Your task to perform on an android device: turn off priority inbox in the gmail app Image 0: 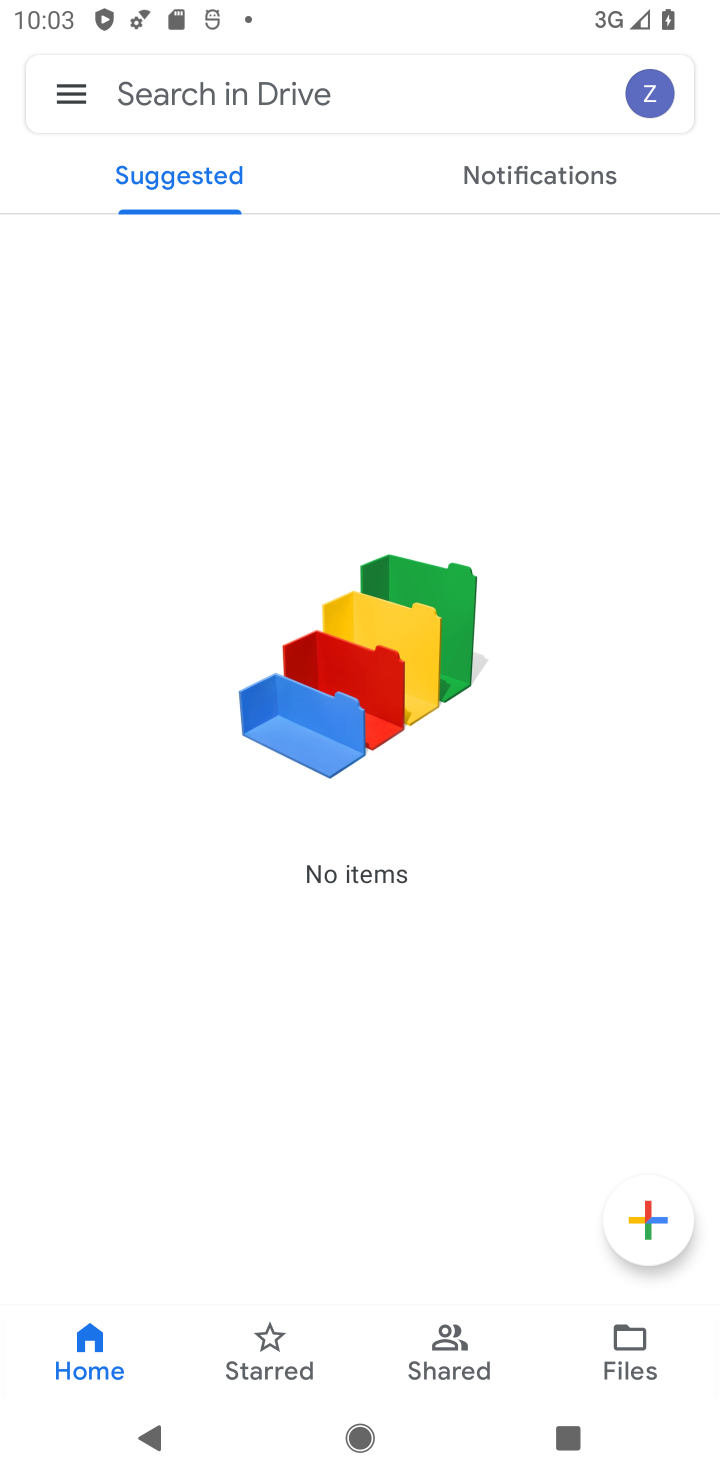
Step 0: press home button
Your task to perform on an android device: turn off priority inbox in the gmail app Image 1: 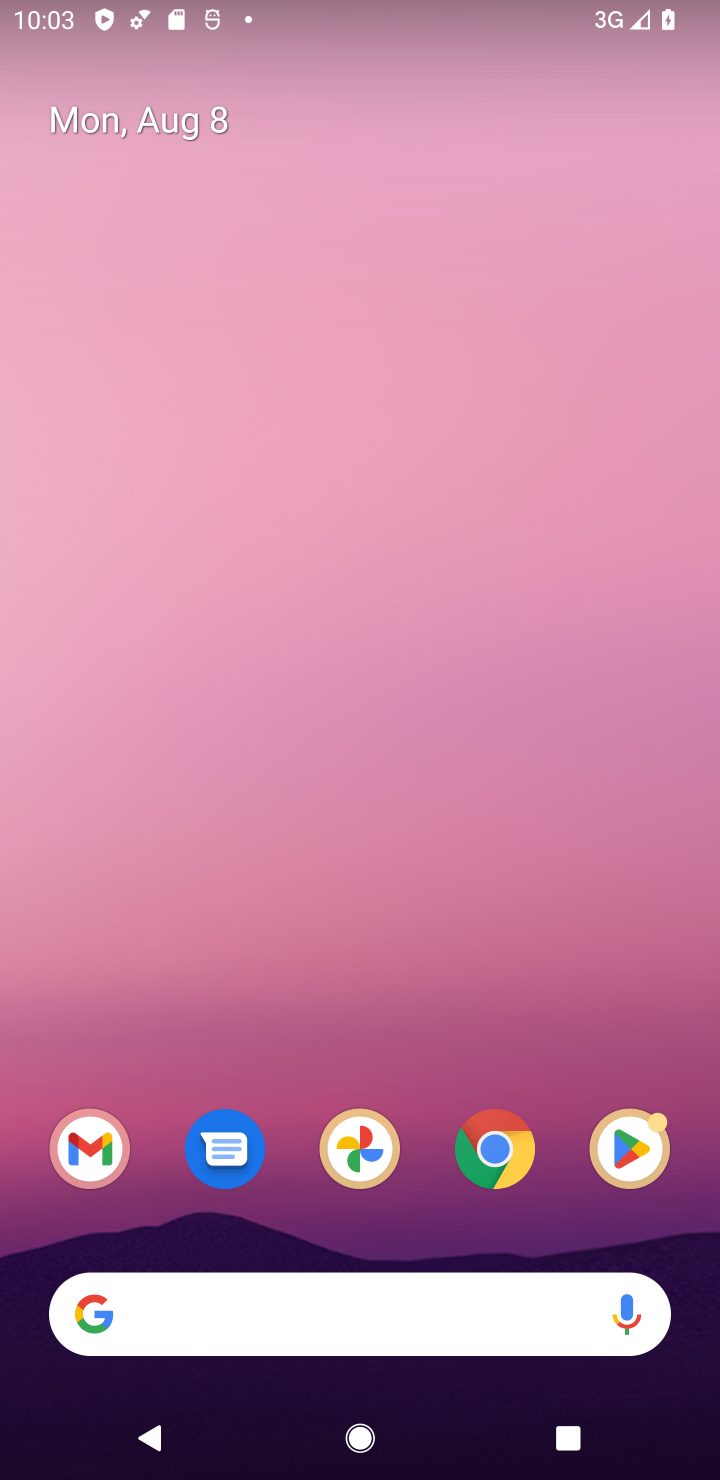
Step 1: click (85, 1132)
Your task to perform on an android device: turn off priority inbox in the gmail app Image 2: 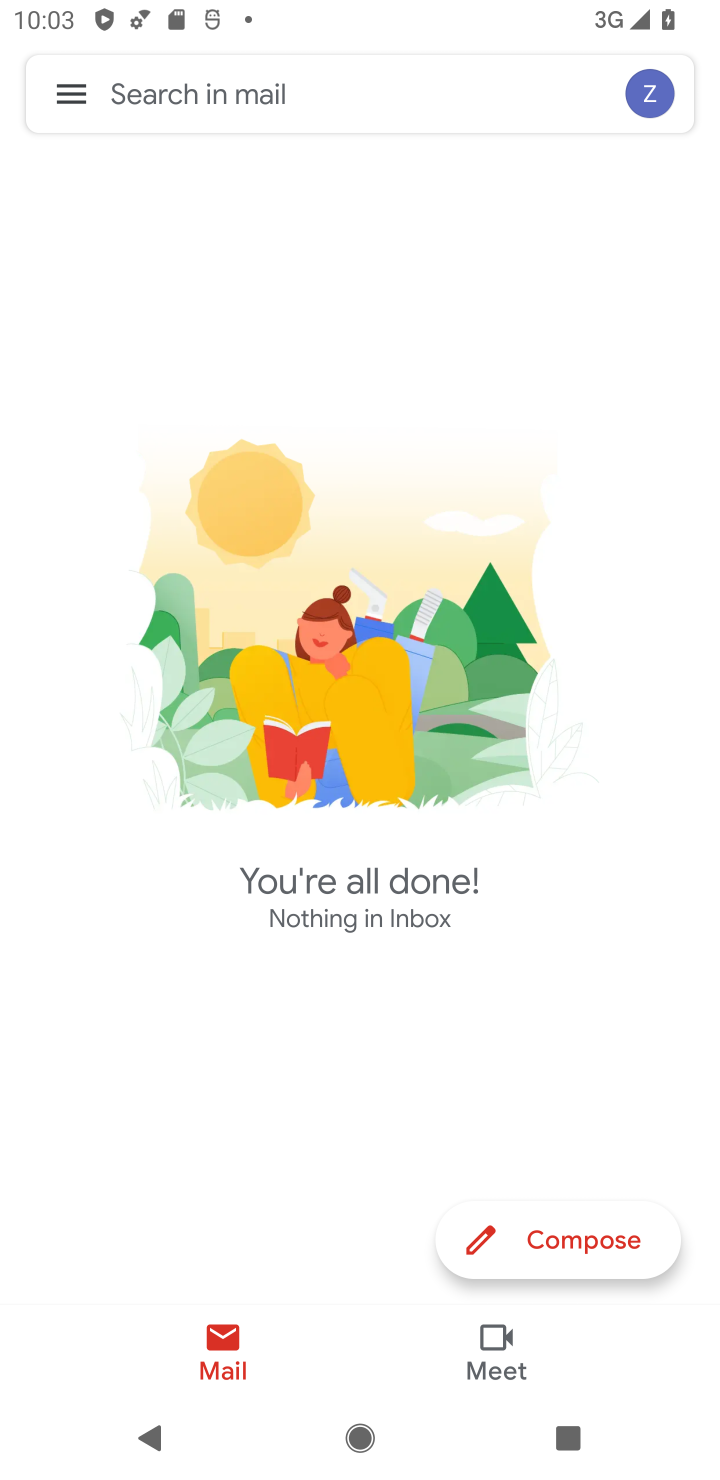
Step 2: click (84, 90)
Your task to perform on an android device: turn off priority inbox in the gmail app Image 3: 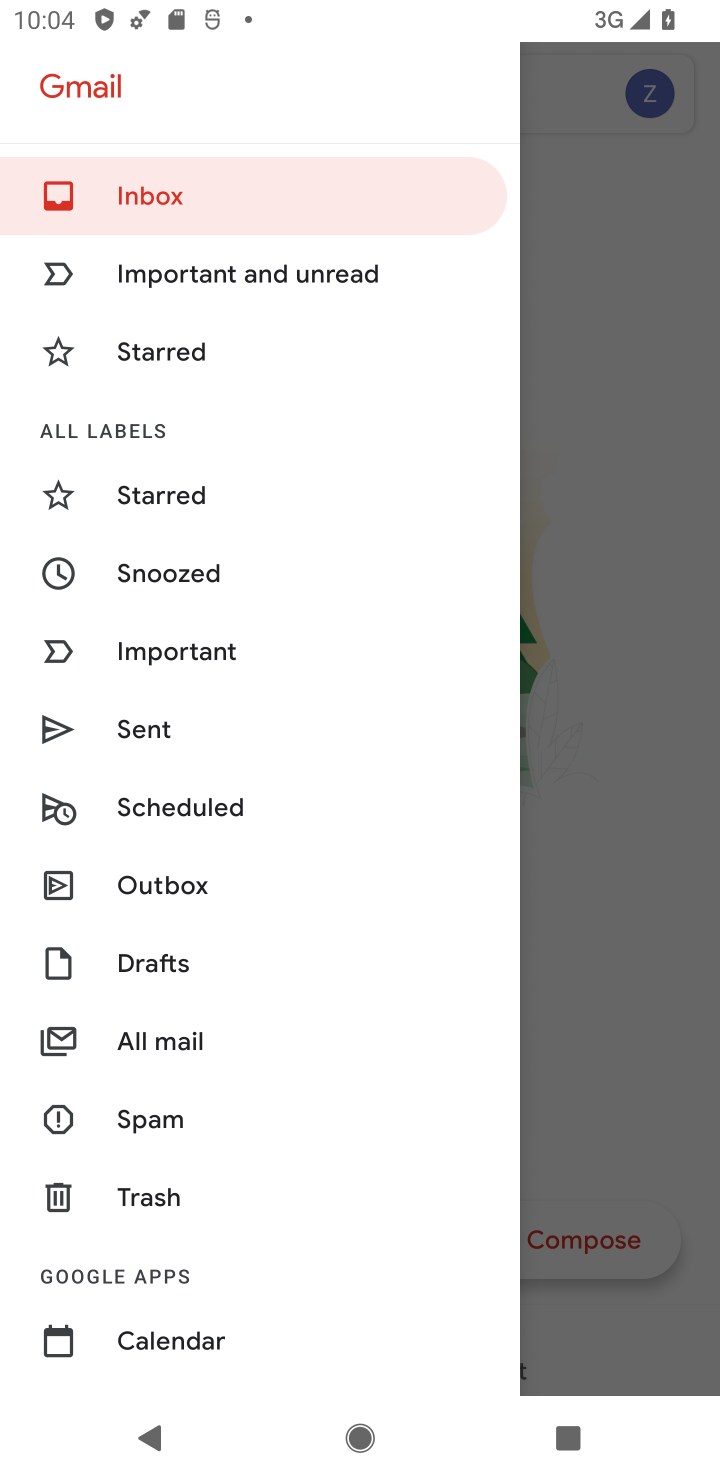
Step 3: drag from (134, 1335) to (134, 761)
Your task to perform on an android device: turn off priority inbox in the gmail app Image 4: 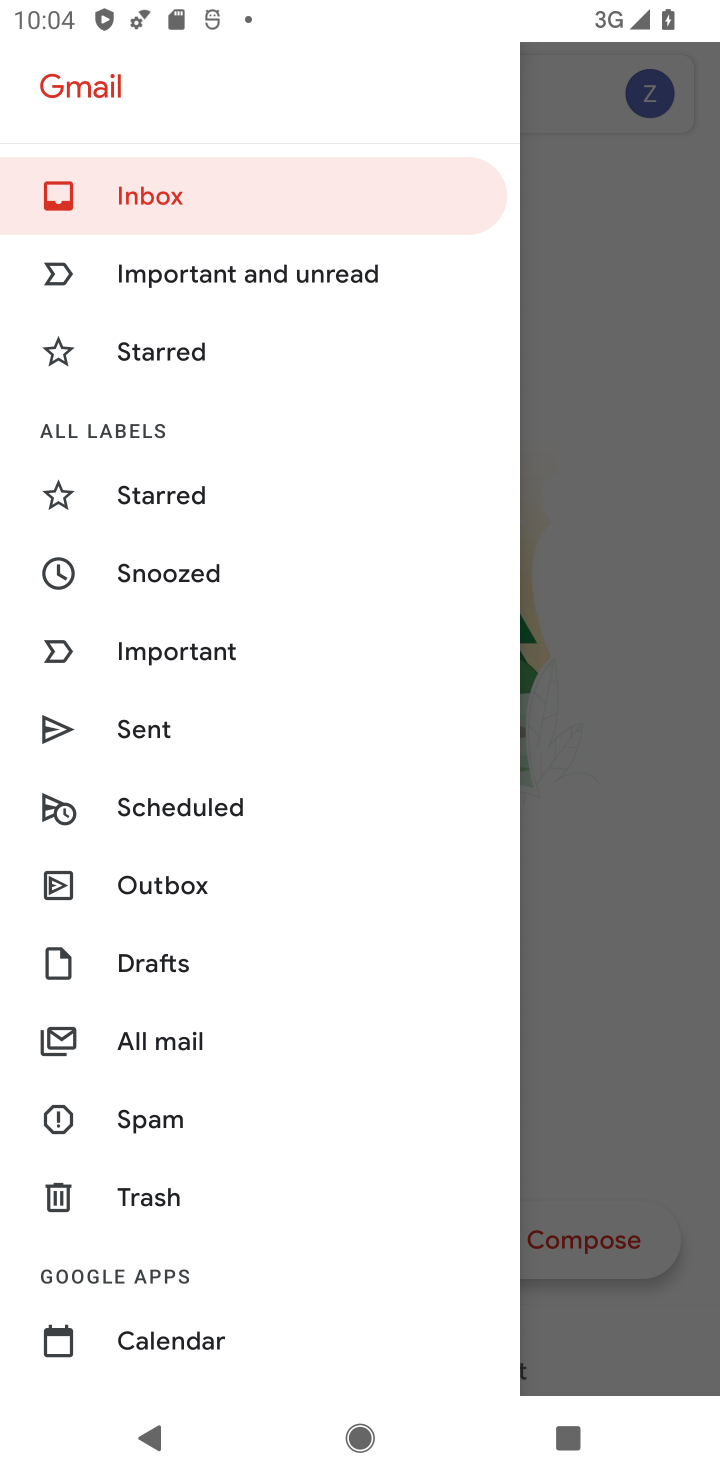
Step 4: drag from (273, 1271) to (304, 592)
Your task to perform on an android device: turn off priority inbox in the gmail app Image 5: 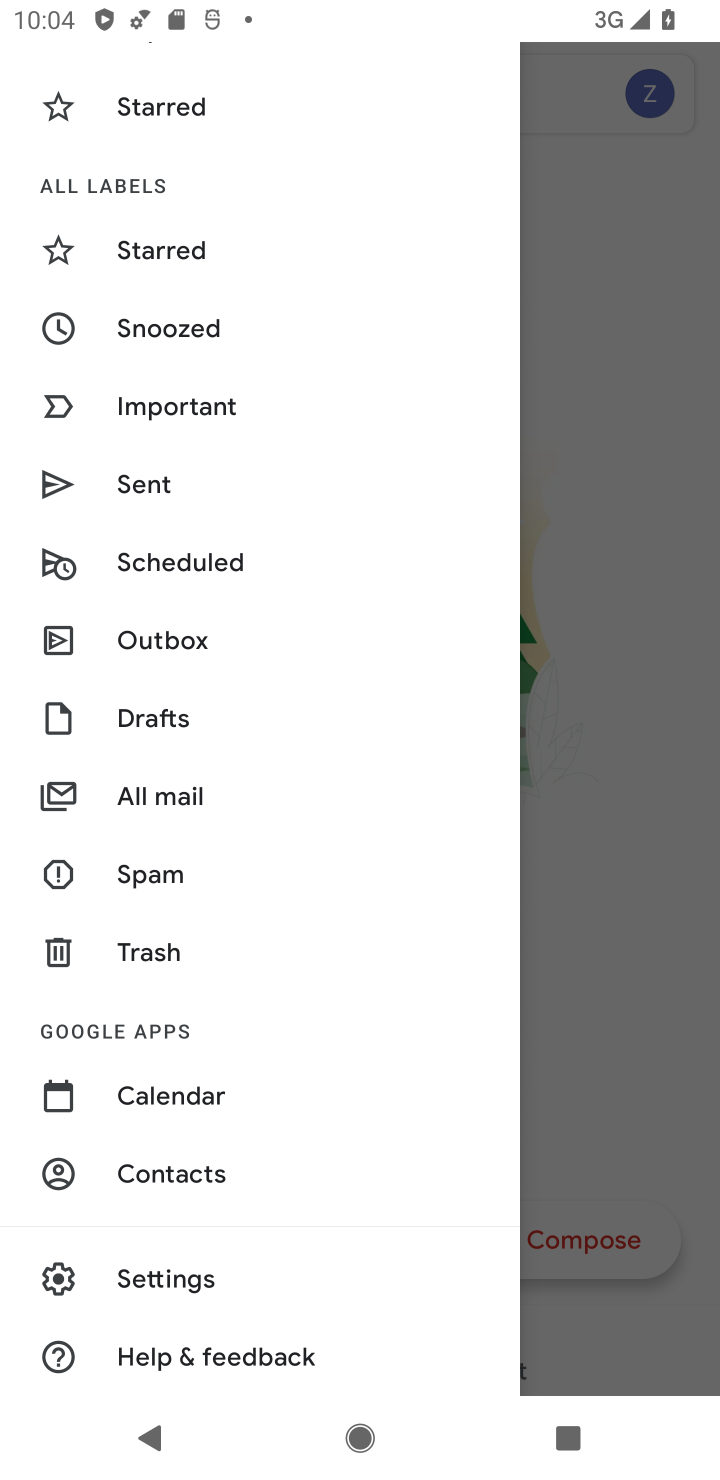
Step 5: click (149, 1284)
Your task to perform on an android device: turn off priority inbox in the gmail app Image 6: 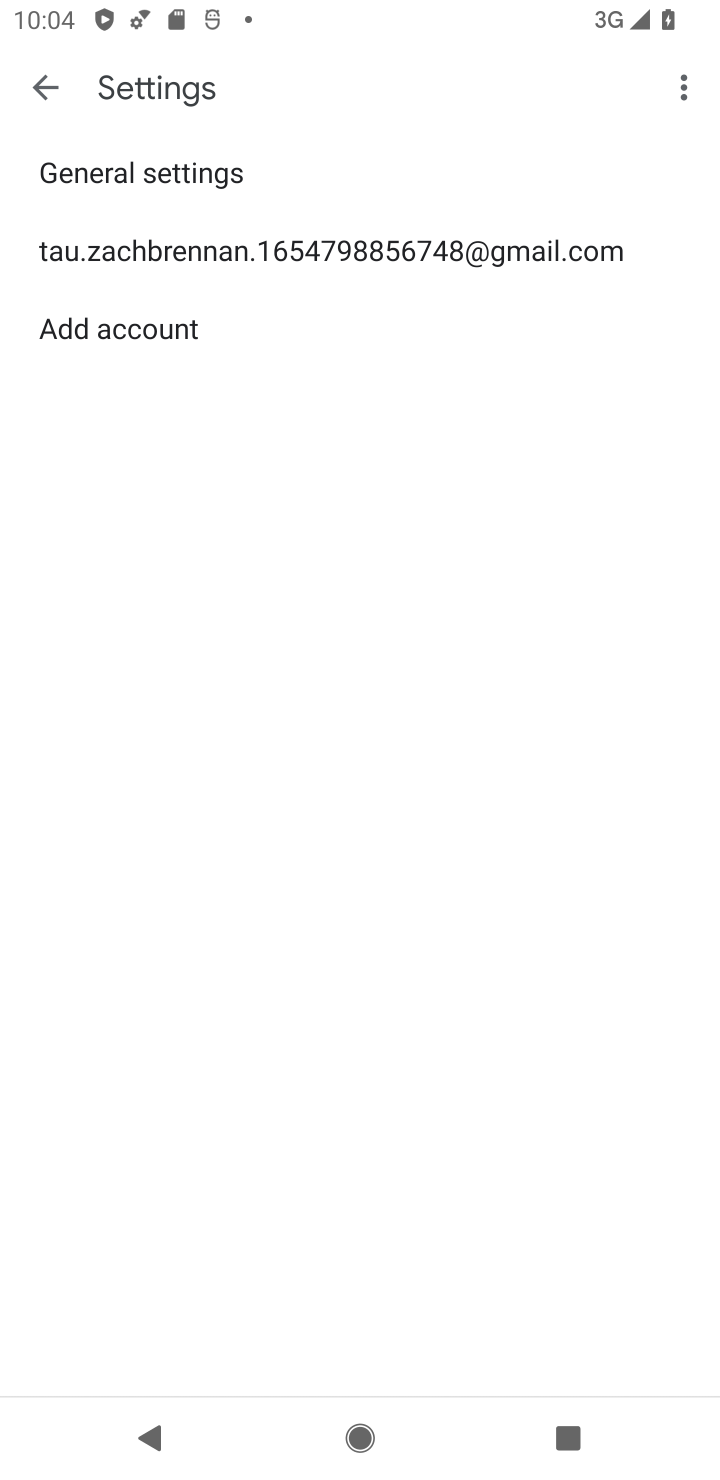
Step 6: click (94, 253)
Your task to perform on an android device: turn off priority inbox in the gmail app Image 7: 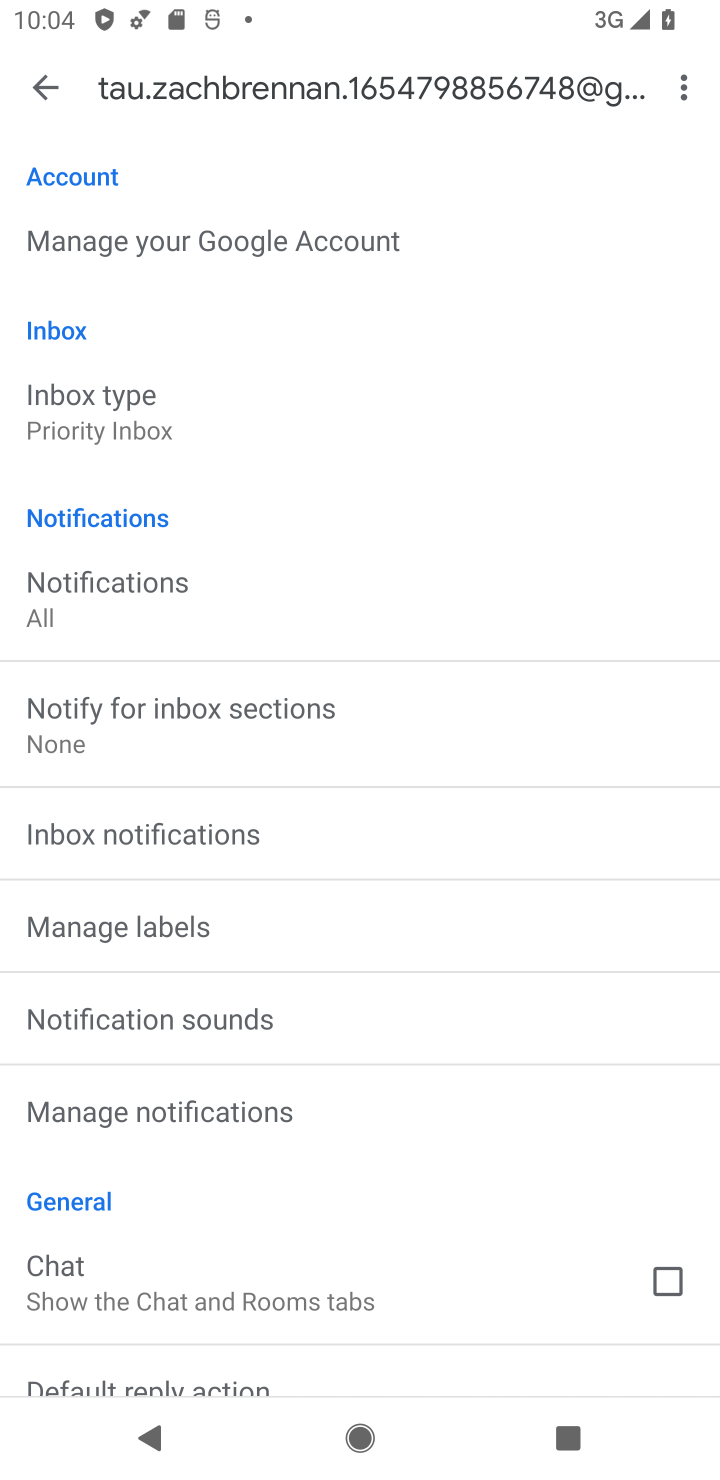
Step 7: click (104, 409)
Your task to perform on an android device: turn off priority inbox in the gmail app Image 8: 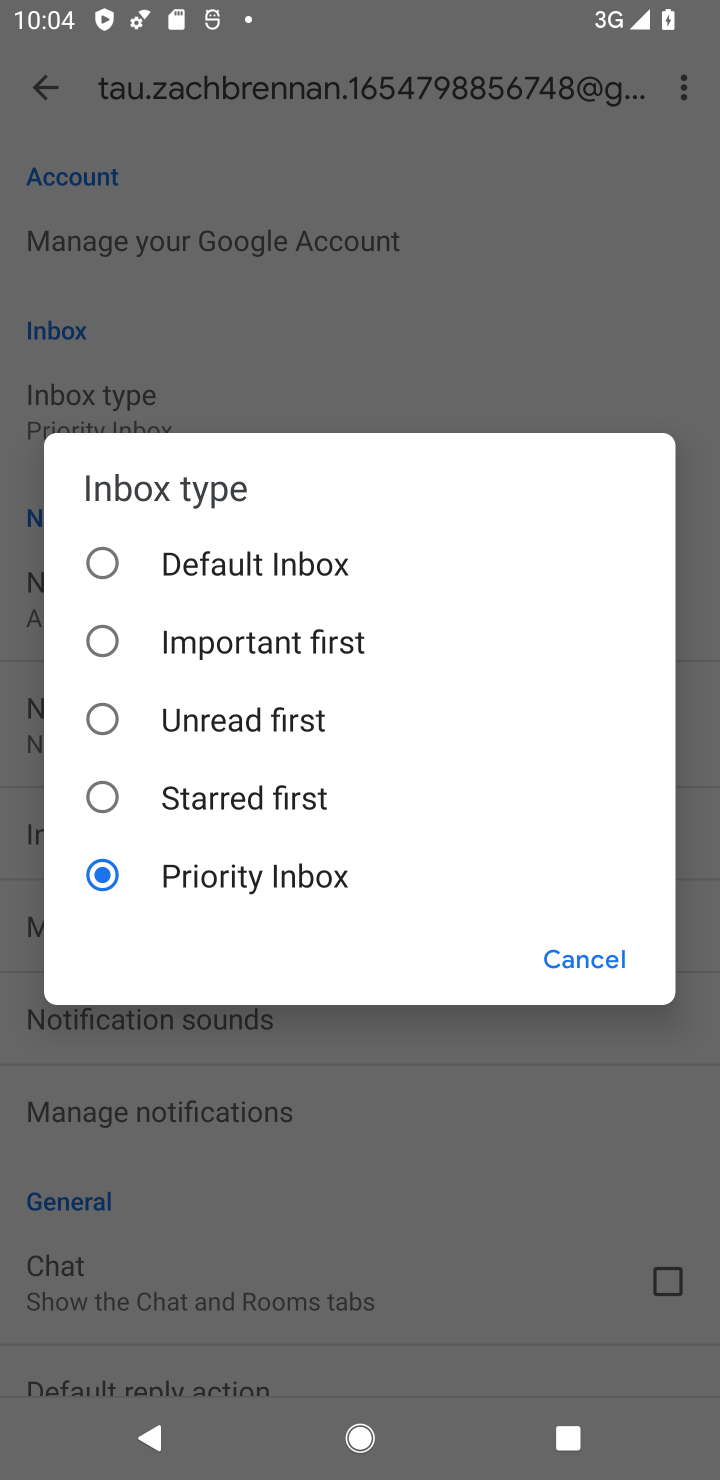
Step 8: click (173, 642)
Your task to perform on an android device: turn off priority inbox in the gmail app Image 9: 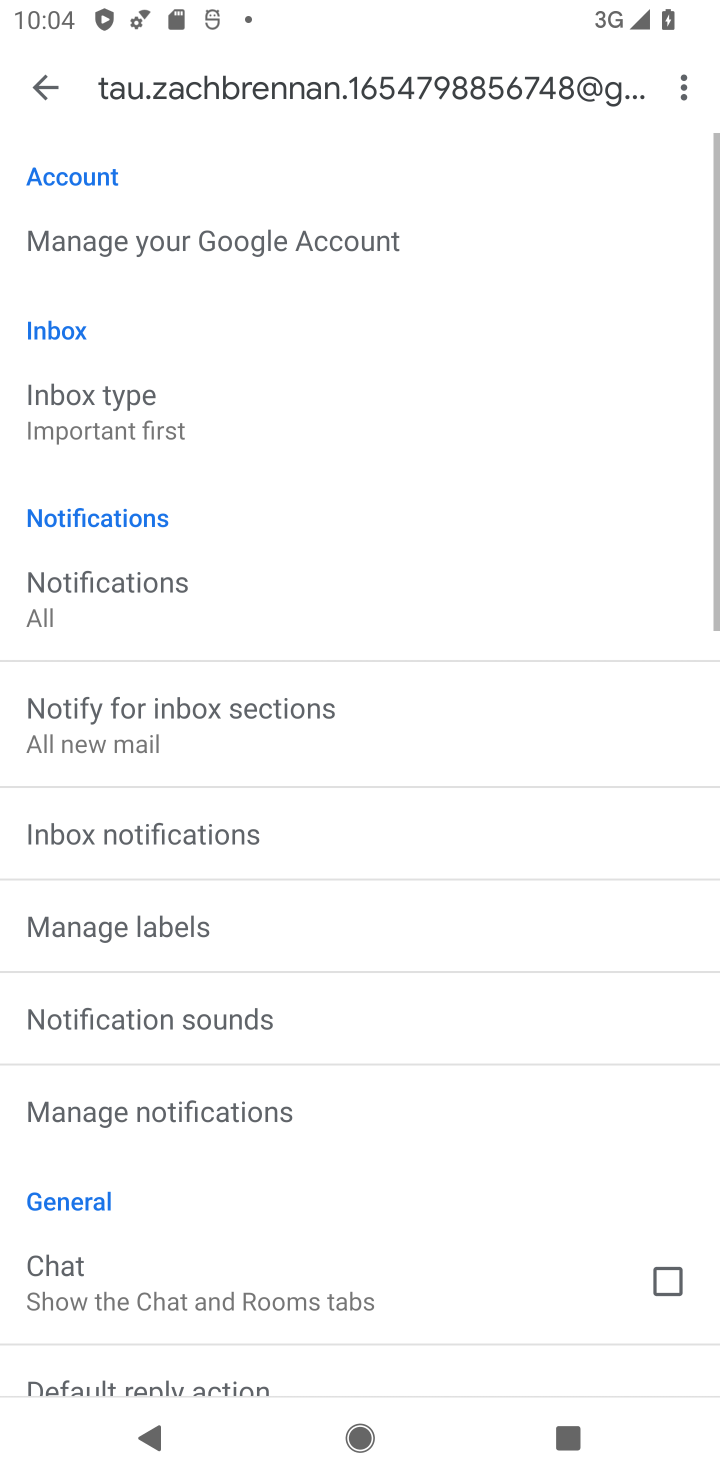
Step 9: task complete